Your task to perform on an android device: Go to privacy settings Image 0: 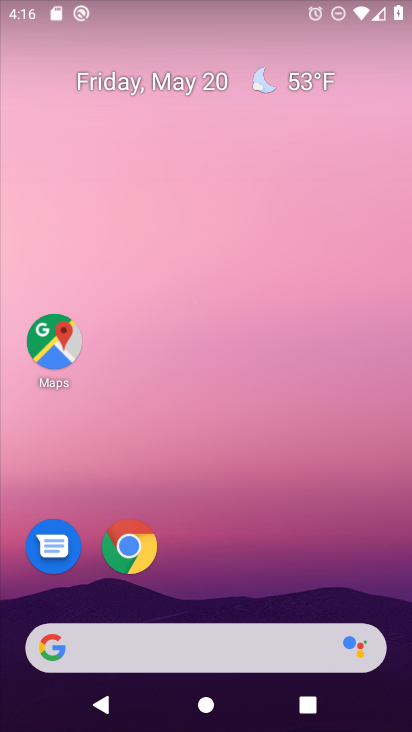
Step 0: drag from (230, 485) to (260, 93)
Your task to perform on an android device: Go to privacy settings Image 1: 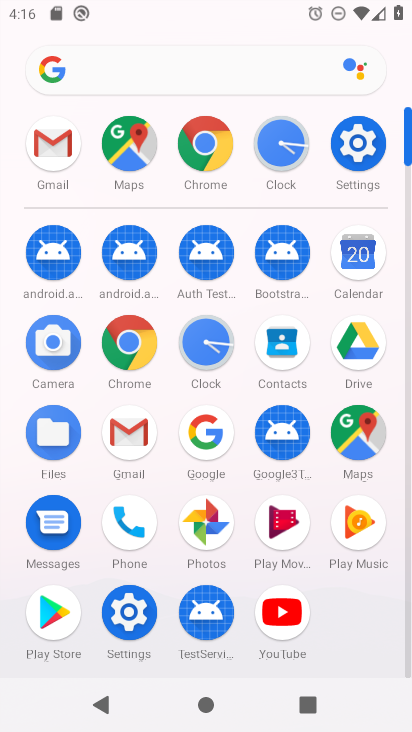
Step 1: click (355, 127)
Your task to perform on an android device: Go to privacy settings Image 2: 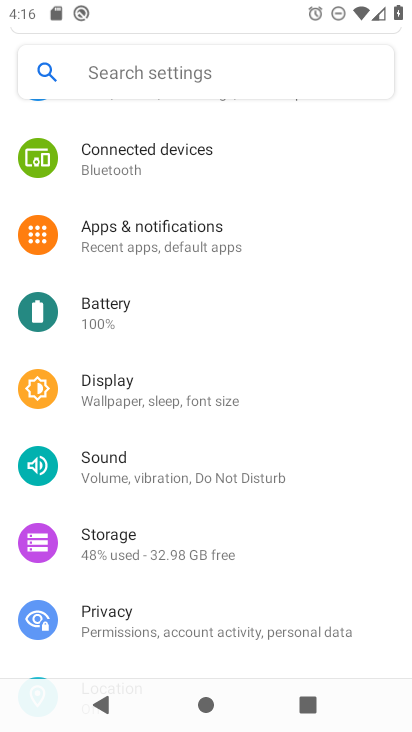
Step 2: drag from (181, 562) to (288, 80)
Your task to perform on an android device: Go to privacy settings Image 3: 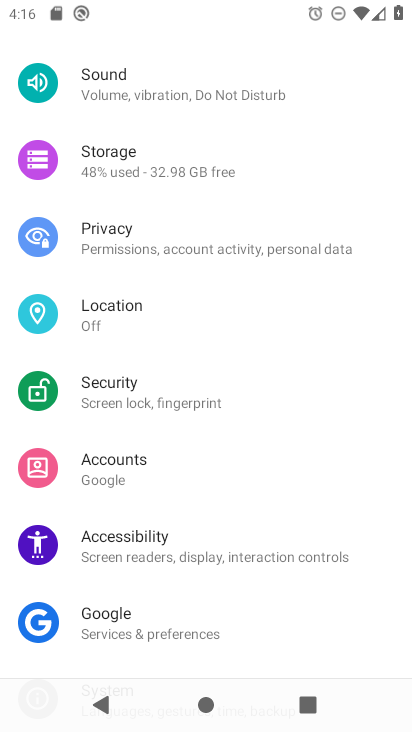
Step 3: click (177, 229)
Your task to perform on an android device: Go to privacy settings Image 4: 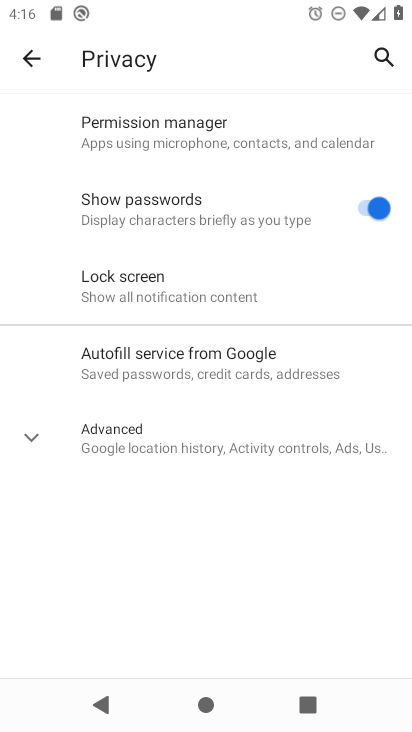
Step 4: task complete